Your task to perform on an android device: Check the weather Image 0: 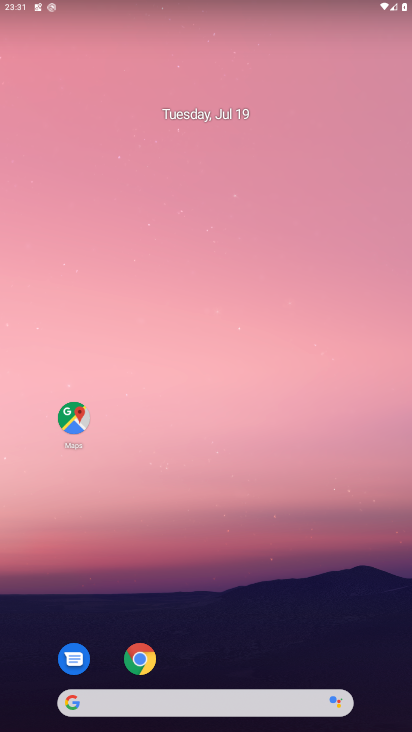
Step 0: drag from (22, 231) to (396, 199)
Your task to perform on an android device: Check the weather Image 1: 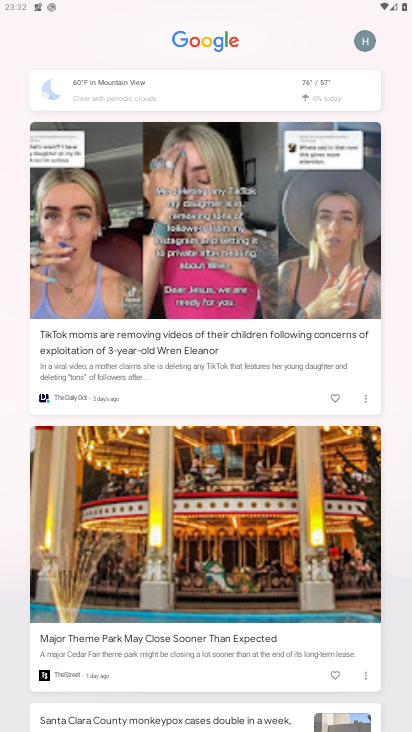
Step 1: click (317, 79)
Your task to perform on an android device: Check the weather Image 2: 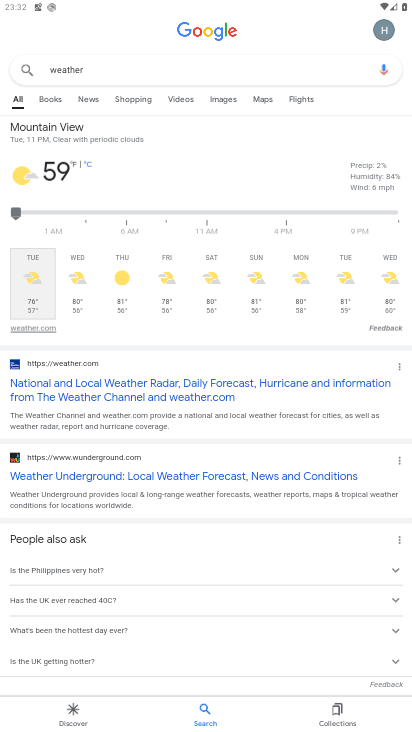
Step 2: task complete